Your task to perform on an android device: turn off sleep mode Image 0: 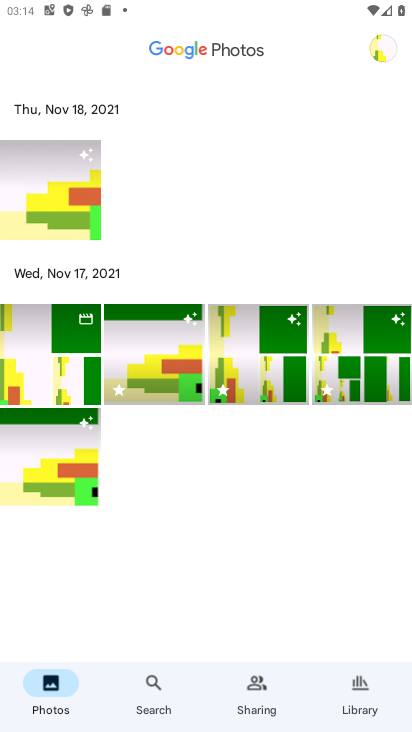
Step 0: press home button
Your task to perform on an android device: turn off sleep mode Image 1: 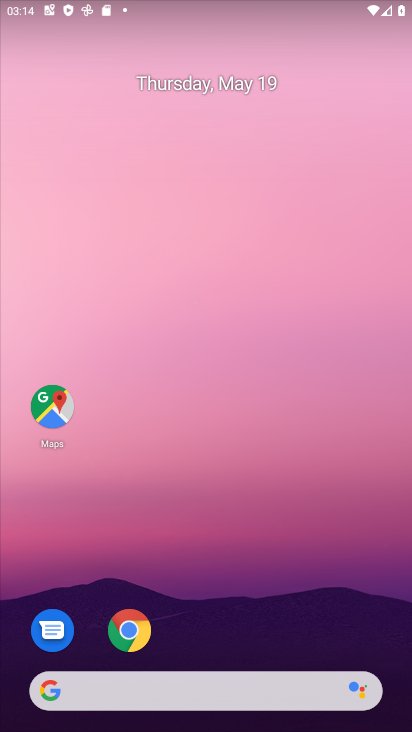
Step 1: drag from (383, 636) to (301, 82)
Your task to perform on an android device: turn off sleep mode Image 2: 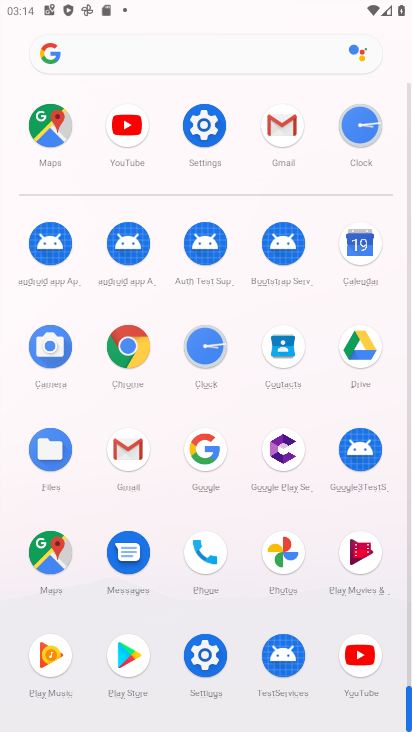
Step 2: click (205, 657)
Your task to perform on an android device: turn off sleep mode Image 3: 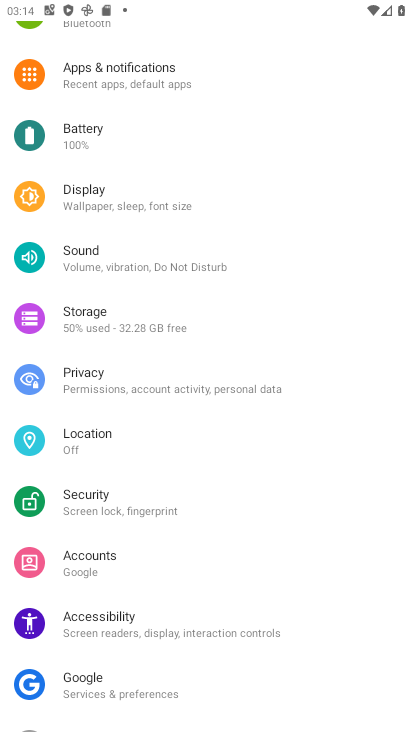
Step 3: drag from (281, 183) to (306, 421)
Your task to perform on an android device: turn off sleep mode Image 4: 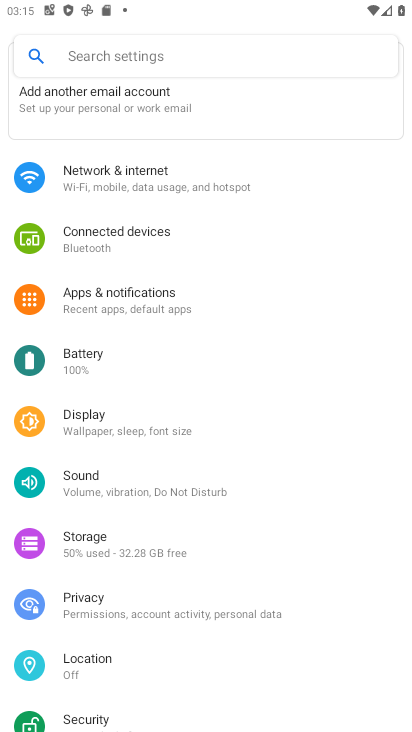
Step 4: click (102, 420)
Your task to perform on an android device: turn off sleep mode Image 5: 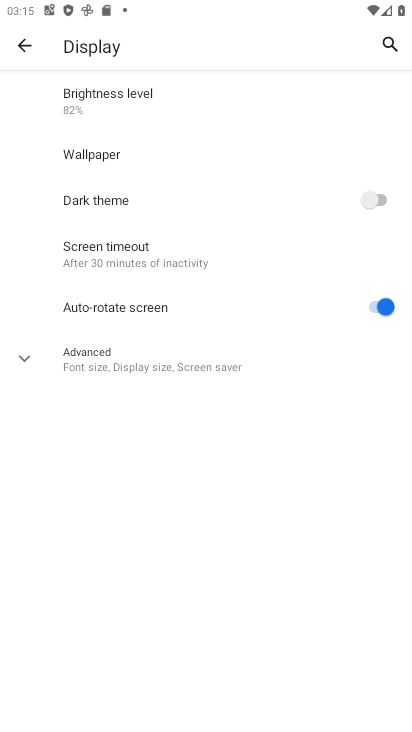
Step 5: click (23, 359)
Your task to perform on an android device: turn off sleep mode Image 6: 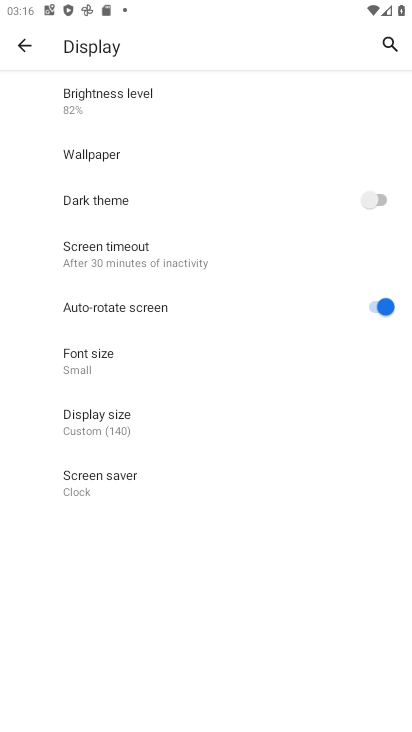
Step 6: task complete